Your task to perform on an android device: Go to location settings Image 0: 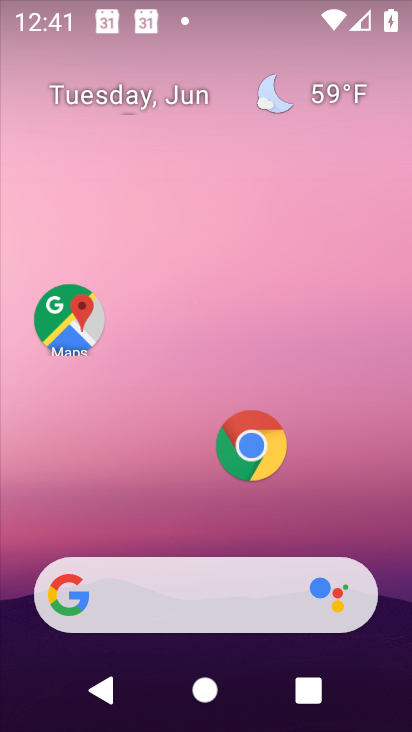
Step 0: drag from (163, 520) to (154, 252)
Your task to perform on an android device: Go to location settings Image 1: 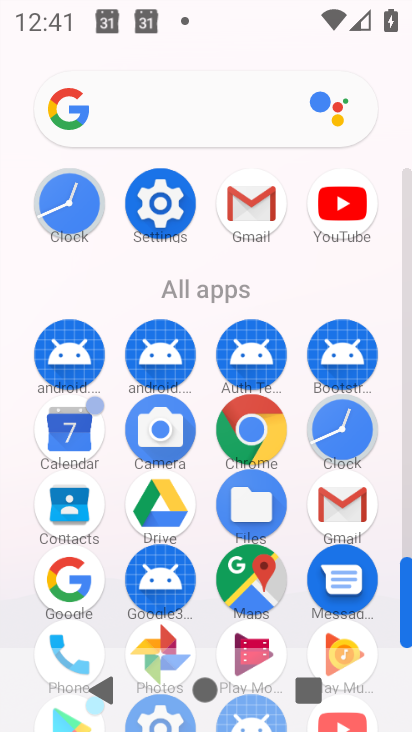
Step 1: click (153, 204)
Your task to perform on an android device: Go to location settings Image 2: 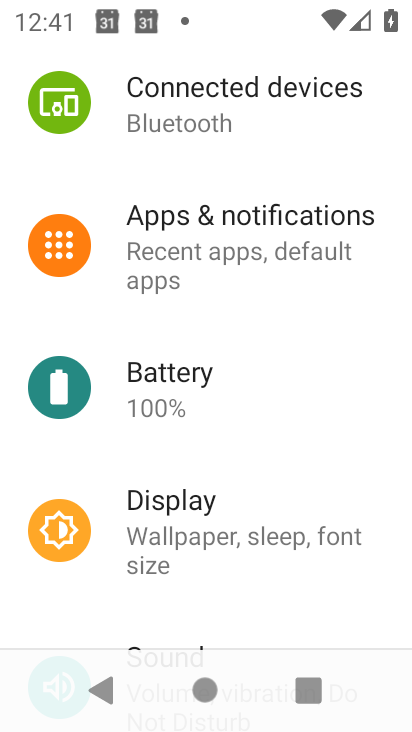
Step 2: drag from (158, 581) to (186, 233)
Your task to perform on an android device: Go to location settings Image 3: 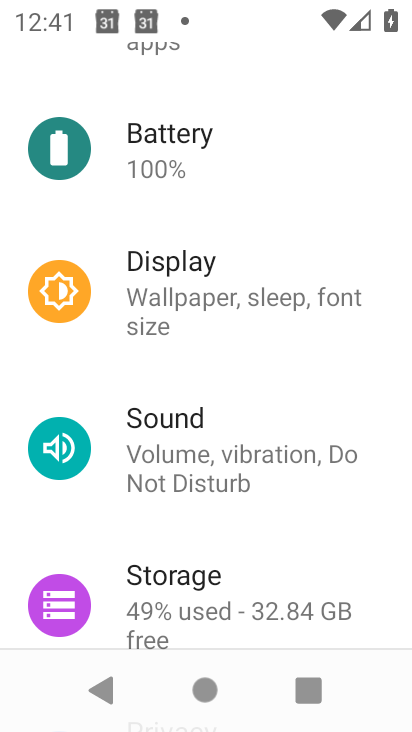
Step 3: drag from (83, 557) to (173, 94)
Your task to perform on an android device: Go to location settings Image 4: 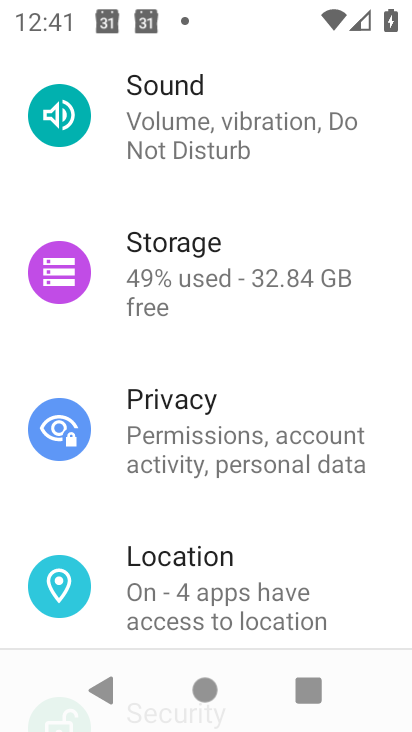
Step 4: click (171, 561)
Your task to perform on an android device: Go to location settings Image 5: 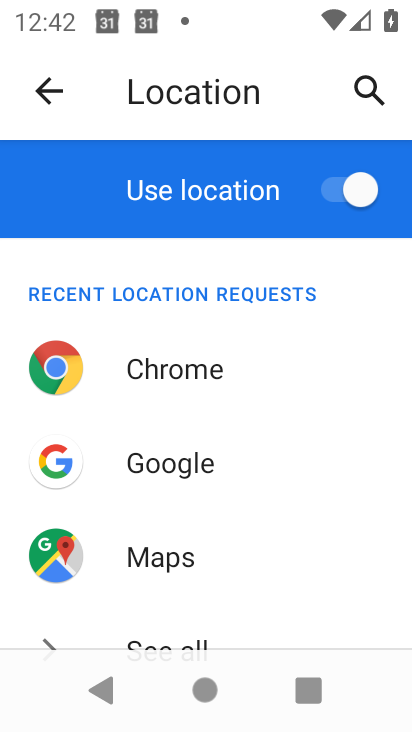
Step 5: task complete